Your task to perform on an android device: Open the web browser Image 0: 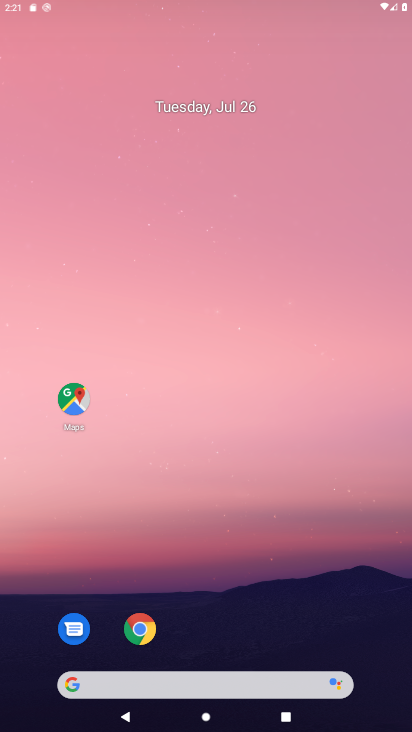
Step 0: press back button
Your task to perform on an android device: Open the web browser Image 1: 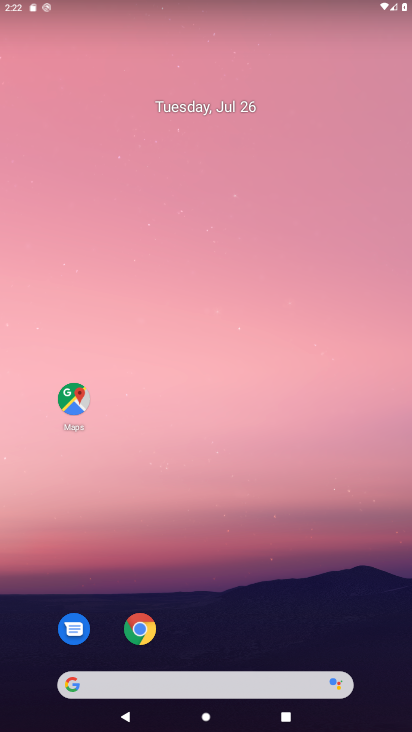
Step 1: press home button
Your task to perform on an android device: Open the web browser Image 2: 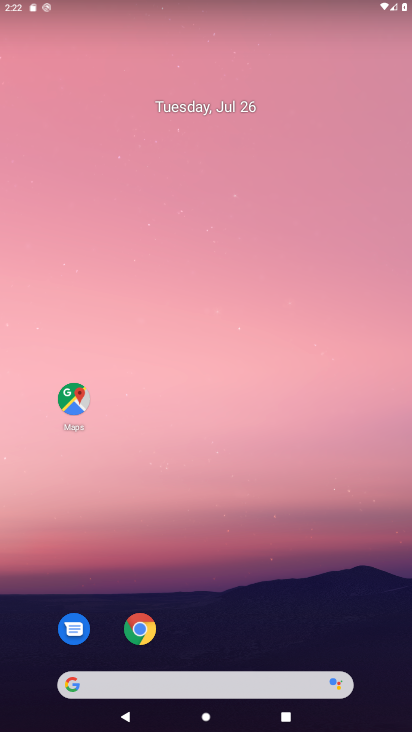
Step 2: click (206, 674)
Your task to perform on an android device: Open the web browser Image 3: 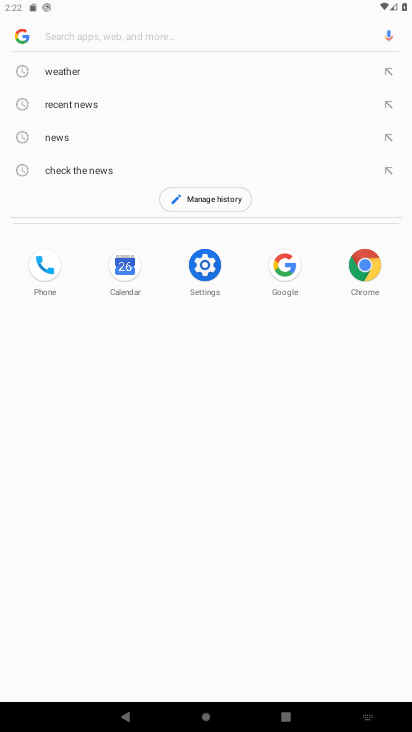
Step 3: task complete